Your task to perform on an android device: check battery use Image 0: 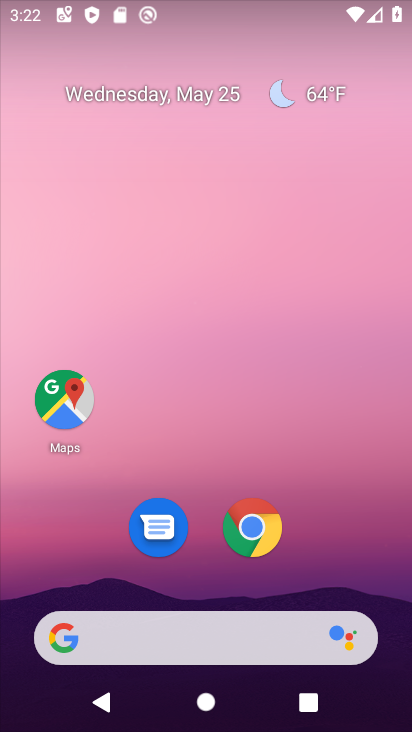
Step 0: drag from (240, 442) to (233, 42)
Your task to perform on an android device: check battery use Image 1: 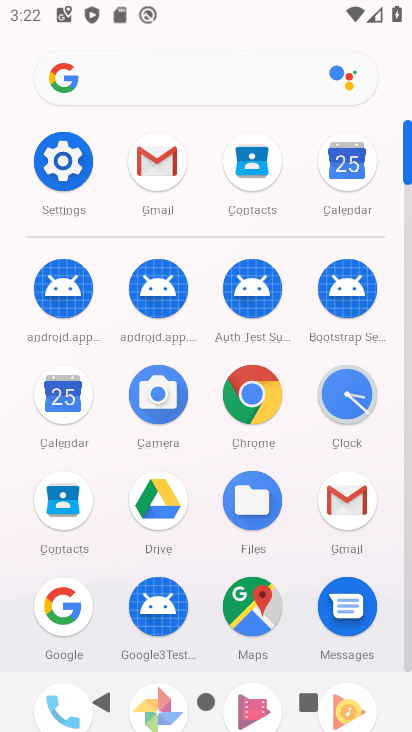
Step 1: click (59, 151)
Your task to perform on an android device: check battery use Image 2: 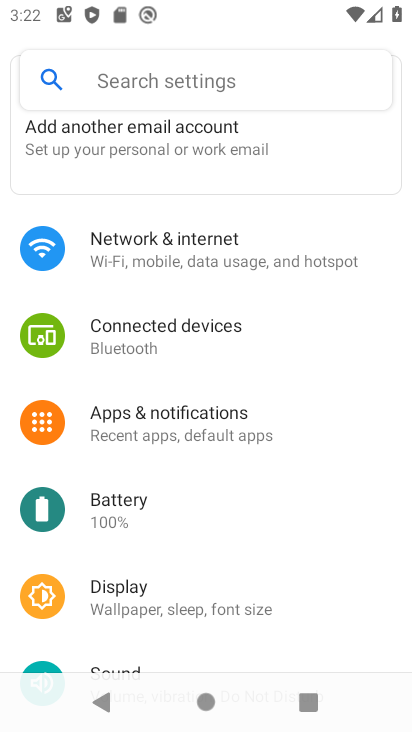
Step 2: click (167, 501)
Your task to perform on an android device: check battery use Image 3: 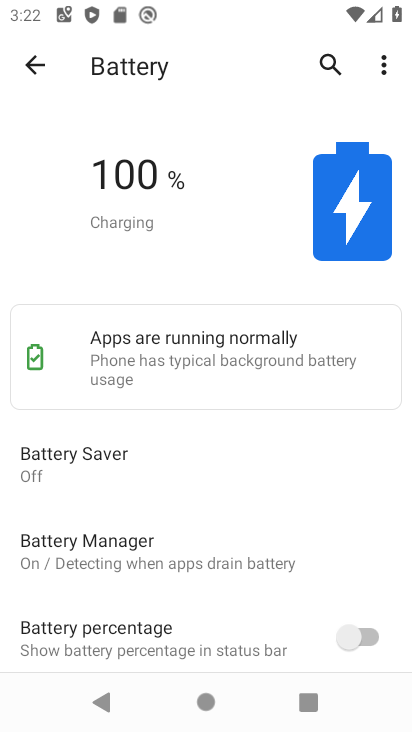
Step 3: click (383, 55)
Your task to perform on an android device: check battery use Image 4: 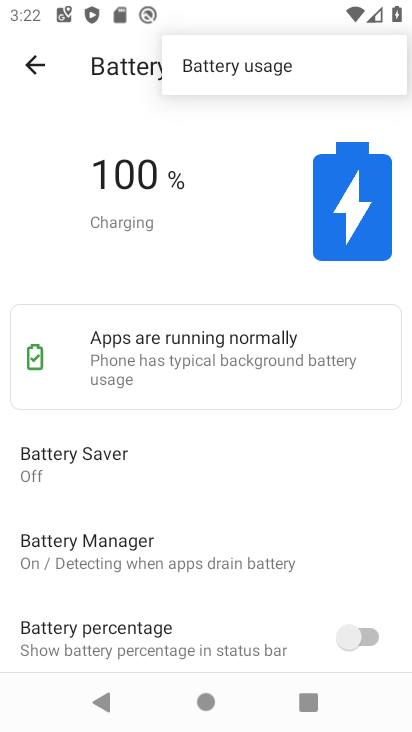
Step 4: click (265, 65)
Your task to perform on an android device: check battery use Image 5: 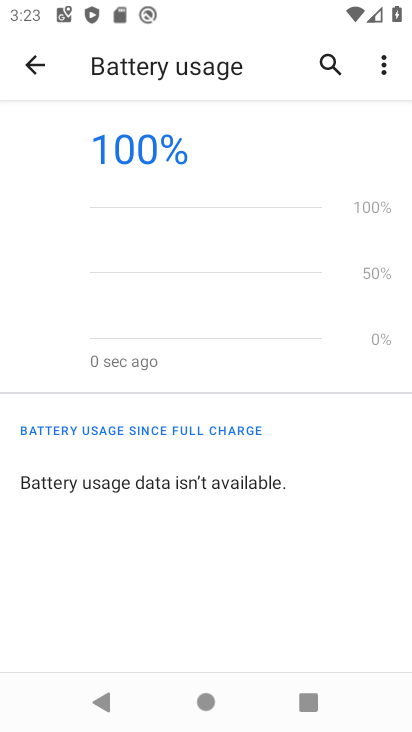
Step 5: task complete